Your task to perform on an android device: Open calendar and show me the third week of next month Image 0: 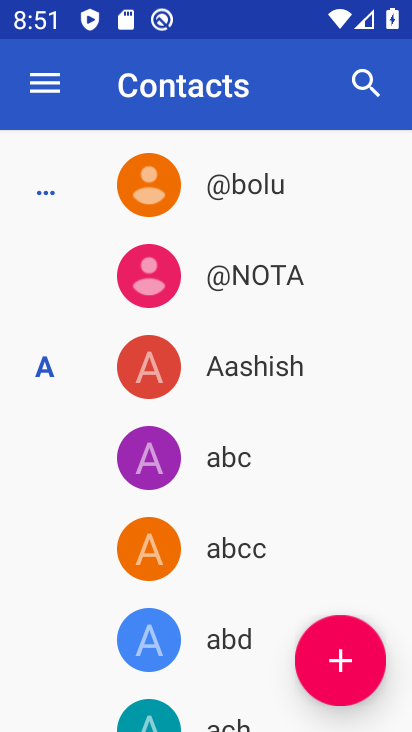
Step 0: press home button
Your task to perform on an android device: Open calendar and show me the third week of next month Image 1: 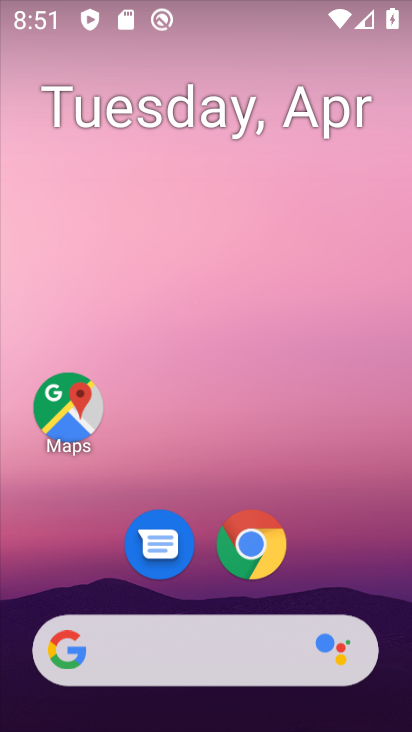
Step 1: drag from (265, 469) to (250, 77)
Your task to perform on an android device: Open calendar and show me the third week of next month Image 2: 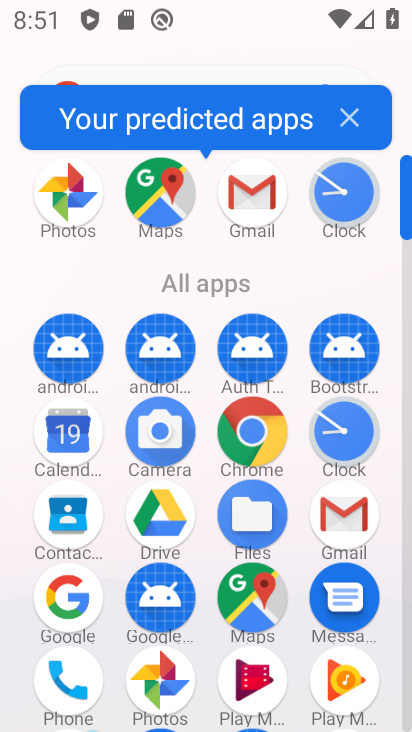
Step 2: click (80, 453)
Your task to perform on an android device: Open calendar and show me the third week of next month Image 3: 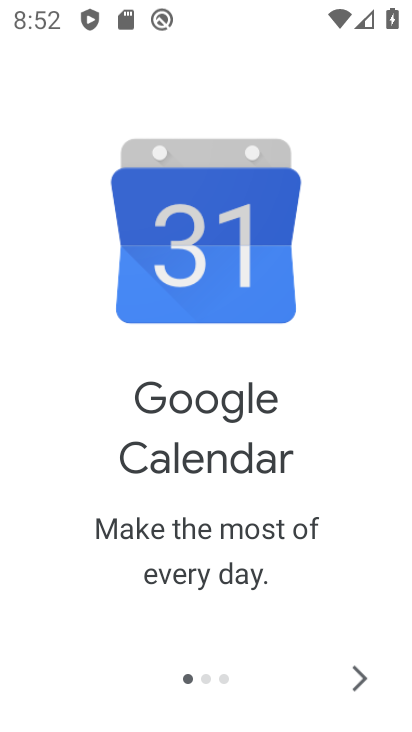
Step 3: click (353, 681)
Your task to perform on an android device: Open calendar and show me the third week of next month Image 4: 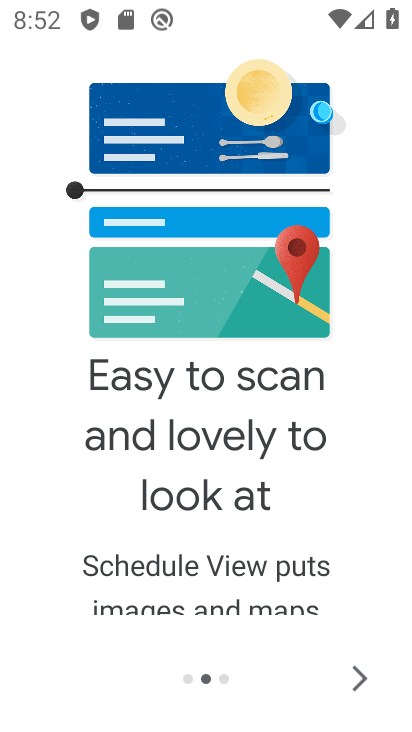
Step 4: click (353, 681)
Your task to perform on an android device: Open calendar and show me the third week of next month Image 5: 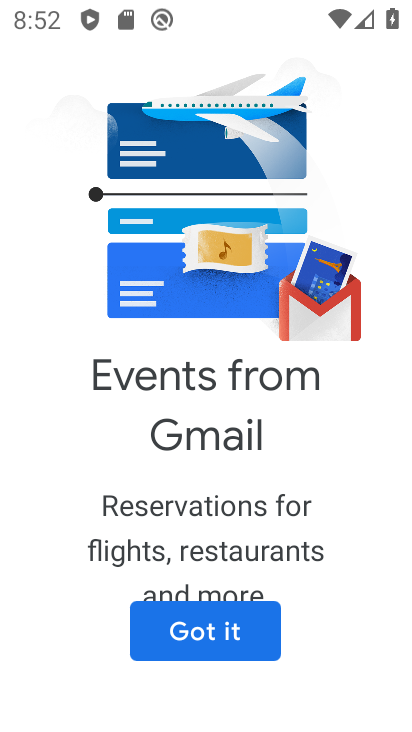
Step 5: click (214, 648)
Your task to perform on an android device: Open calendar and show me the third week of next month Image 6: 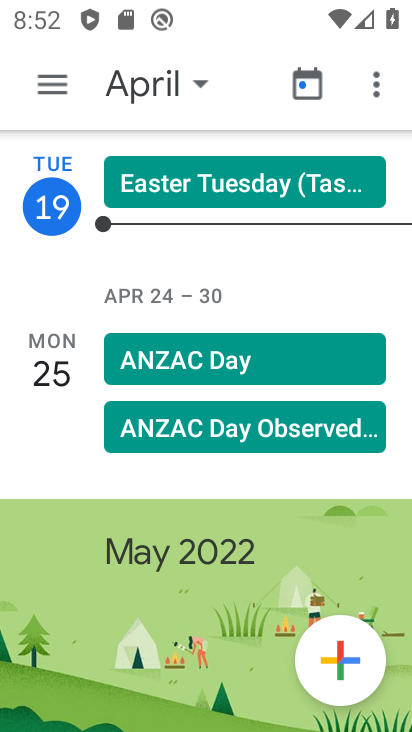
Step 6: click (156, 90)
Your task to perform on an android device: Open calendar and show me the third week of next month Image 7: 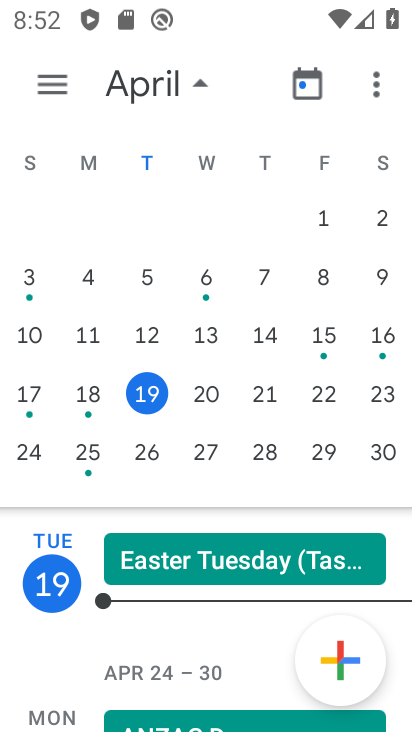
Step 7: drag from (350, 391) to (3, 401)
Your task to perform on an android device: Open calendar and show me the third week of next month Image 8: 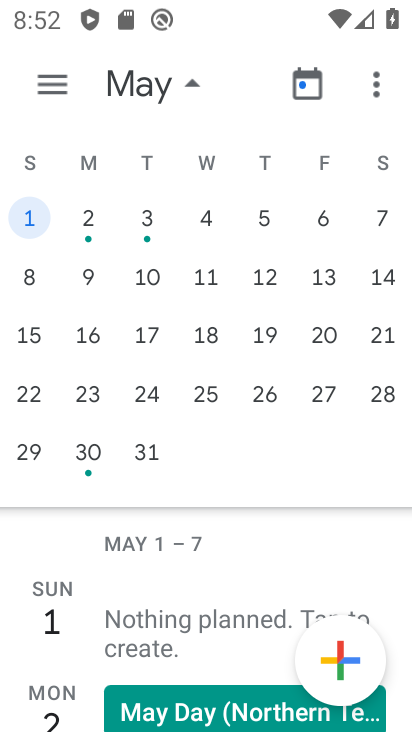
Step 8: click (31, 337)
Your task to perform on an android device: Open calendar and show me the third week of next month Image 9: 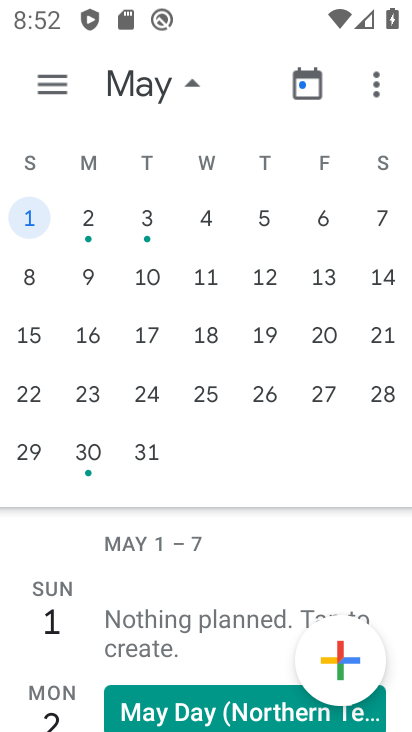
Step 9: click (84, 345)
Your task to perform on an android device: Open calendar and show me the third week of next month Image 10: 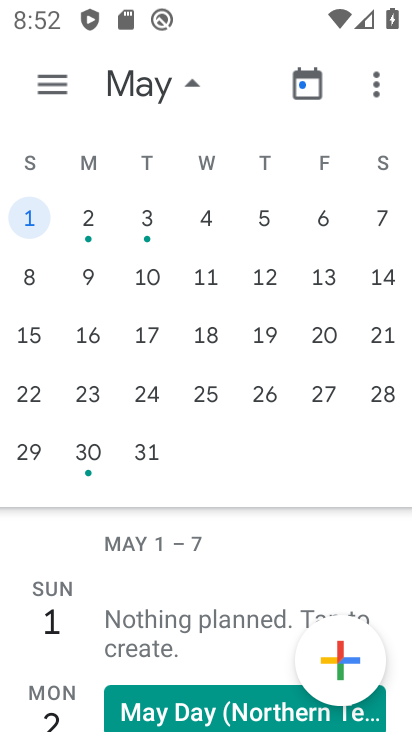
Step 10: click (150, 340)
Your task to perform on an android device: Open calendar and show me the third week of next month Image 11: 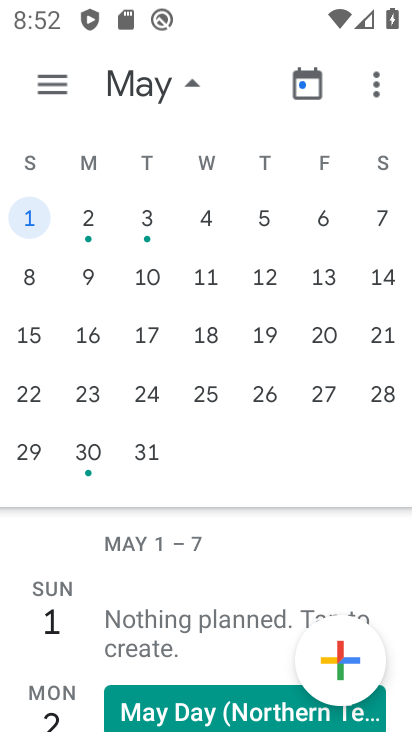
Step 11: click (45, 331)
Your task to perform on an android device: Open calendar and show me the third week of next month Image 12: 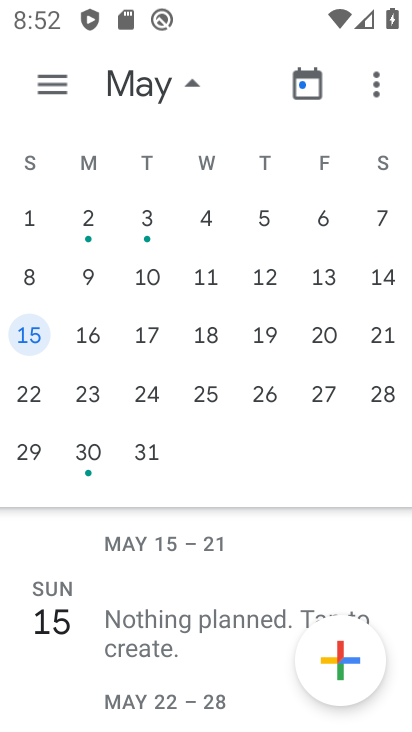
Step 12: click (81, 339)
Your task to perform on an android device: Open calendar and show me the third week of next month Image 13: 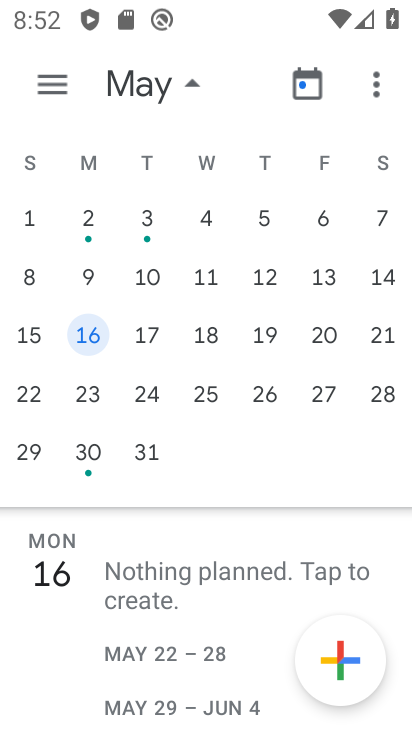
Step 13: click (116, 337)
Your task to perform on an android device: Open calendar and show me the third week of next month Image 14: 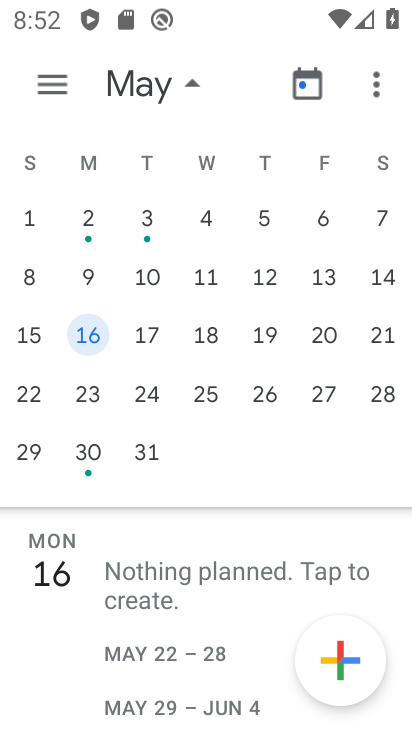
Step 14: click (142, 338)
Your task to perform on an android device: Open calendar and show me the third week of next month Image 15: 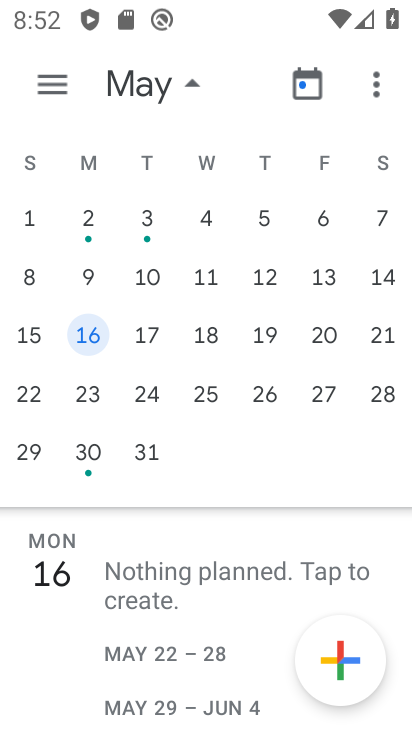
Step 15: click (203, 341)
Your task to perform on an android device: Open calendar and show me the third week of next month Image 16: 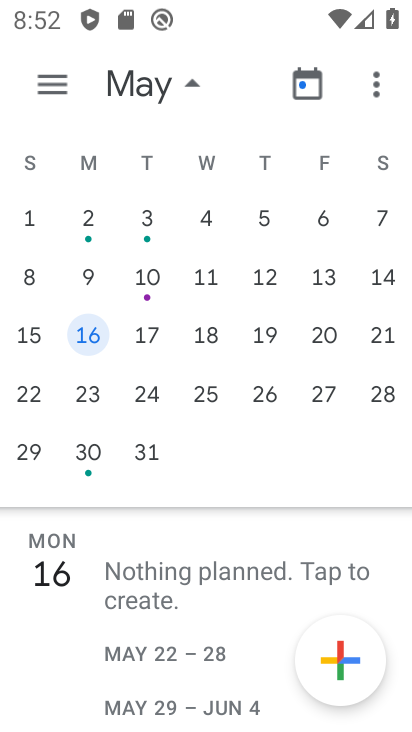
Step 16: click (148, 336)
Your task to perform on an android device: Open calendar and show me the third week of next month Image 17: 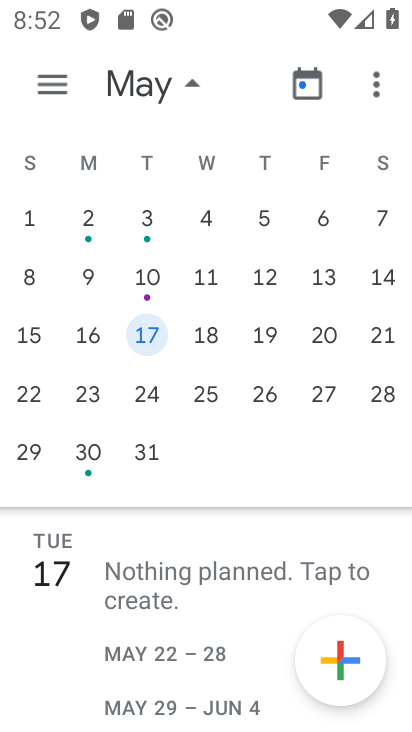
Step 17: click (213, 334)
Your task to perform on an android device: Open calendar and show me the third week of next month Image 18: 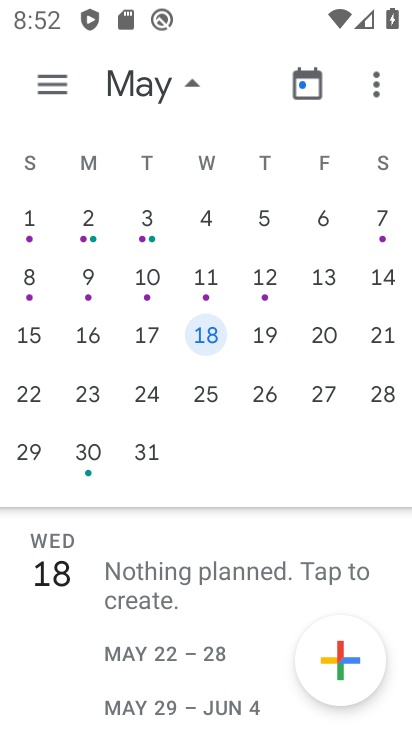
Step 18: click (259, 336)
Your task to perform on an android device: Open calendar and show me the third week of next month Image 19: 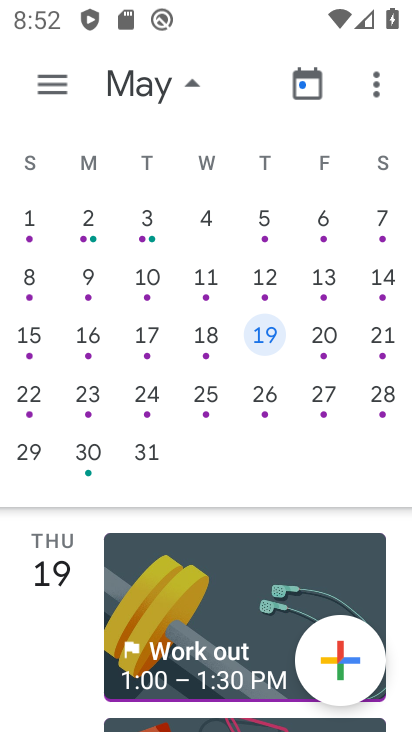
Step 19: click (30, 337)
Your task to perform on an android device: Open calendar and show me the third week of next month Image 20: 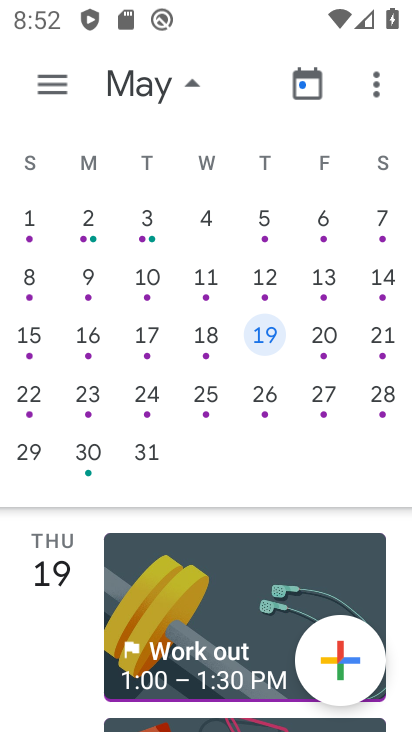
Step 20: click (98, 339)
Your task to perform on an android device: Open calendar and show me the third week of next month Image 21: 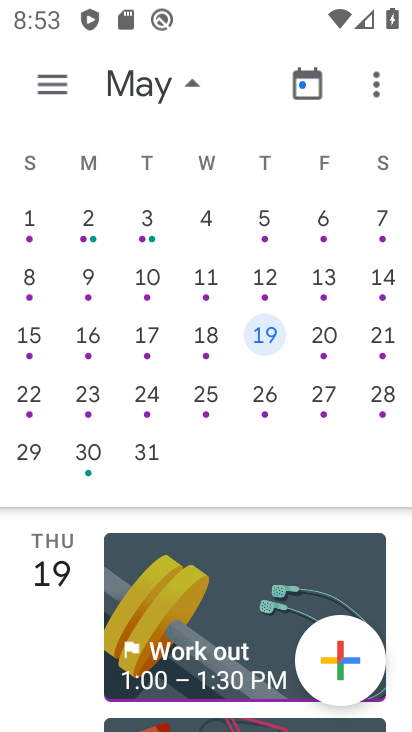
Step 21: click (143, 340)
Your task to perform on an android device: Open calendar and show me the third week of next month Image 22: 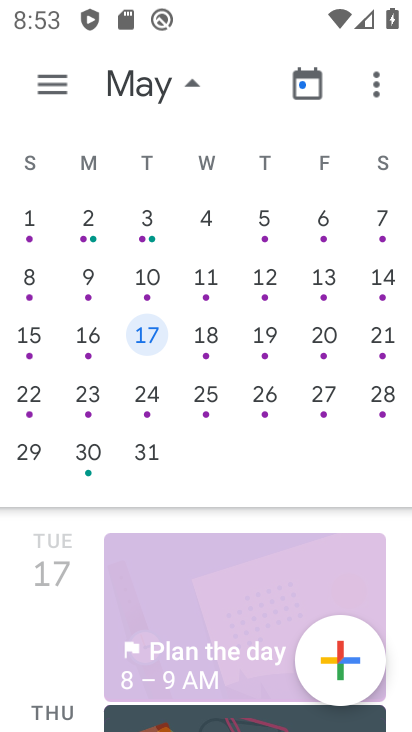
Step 22: click (194, 340)
Your task to perform on an android device: Open calendar and show me the third week of next month Image 23: 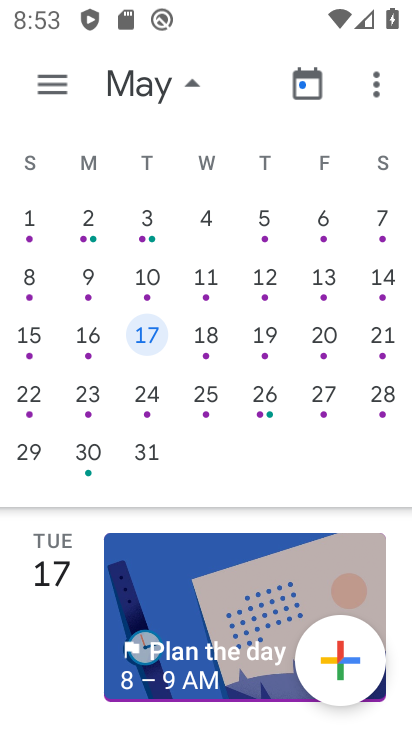
Step 23: click (317, 344)
Your task to perform on an android device: Open calendar and show me the third week of next month Image 24: 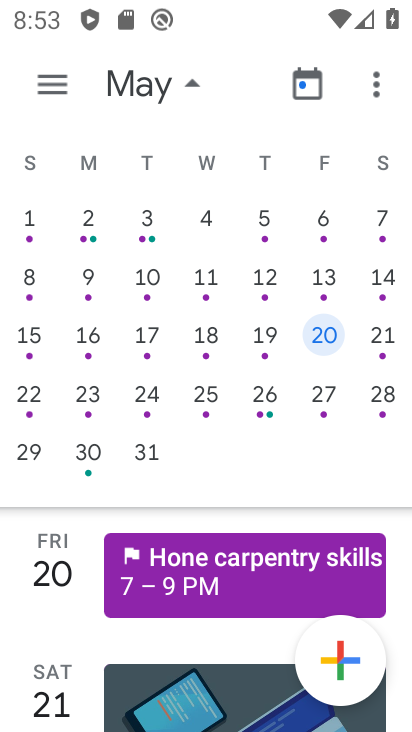
Step 24: click (381, 339)
Your task to perform on an android device: Open calendar and show me the third week of next month Image 25: 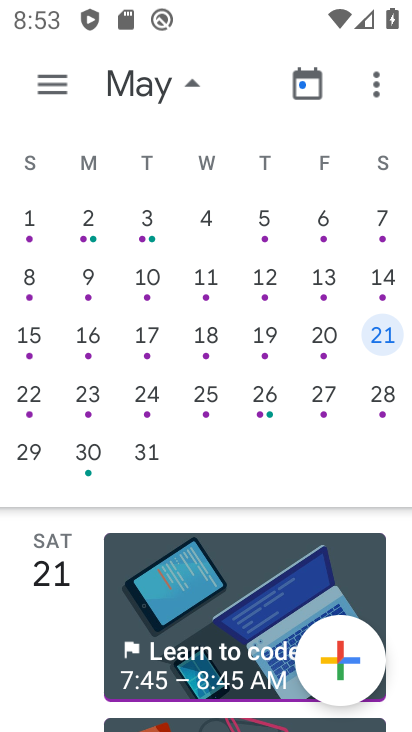
Step 25: task complete